Your task to perform on an android device: turn off notifications settings in the gmail app Image 0: 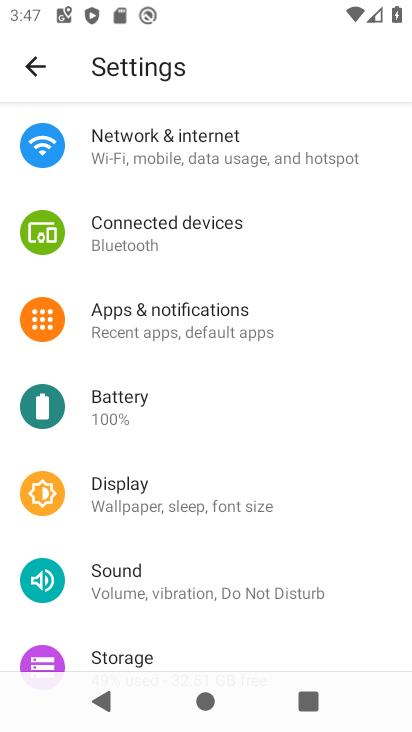
Step 0: press home button
Your task to perform on an android device: turn off notifications settings in the gmail app Image 1: 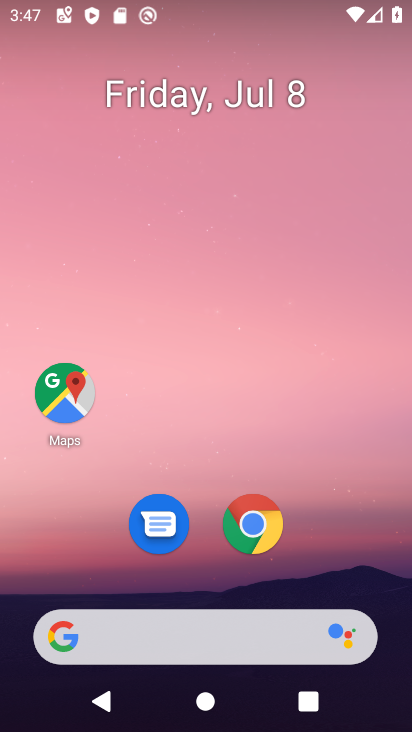
Step 1: drag from (318, 544) to (301, 17)
Your task to perform on an android device: turn off notifications settings in the gmail app Image 2: 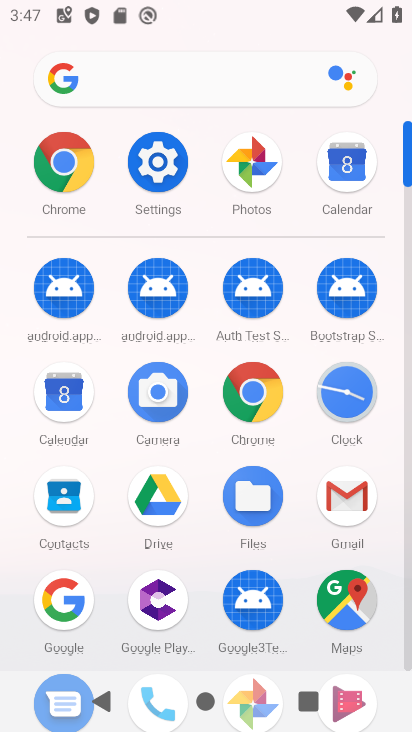
Step 2: click (340, 484)
Your task to perform on an android device: turn off notifications settings in the gmail app Image 3: 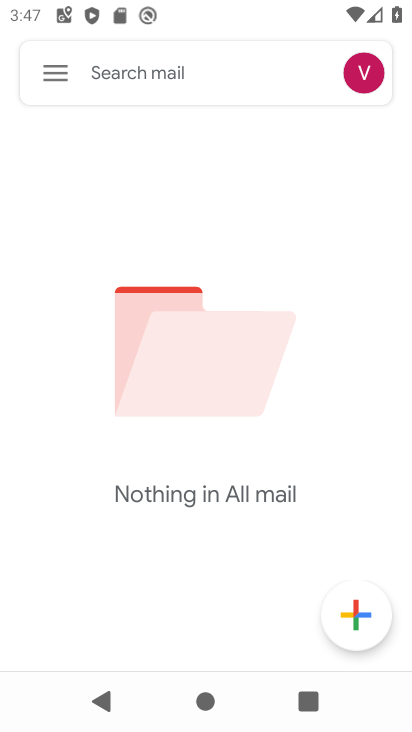
Step 3: click (62, 78)
Your task to perform on an android device: turn off notifications settings in the gmail app Image 4: 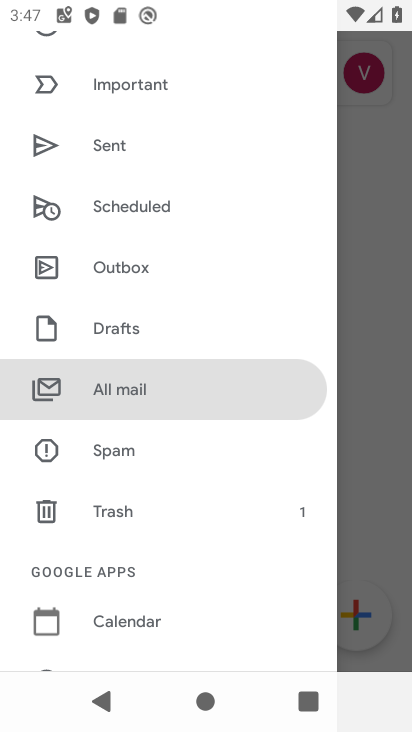
Step 4: drag from (222, 504) to (254, 194)
Your task to perform on an android device: turn off notifications settings in the gmail app Image 5: 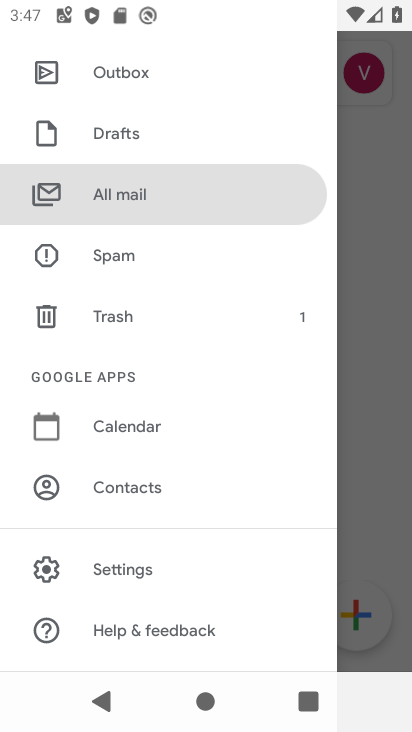
Step 5: click (128, 574)
Your task to perform on an android device: turn off notifications settings in the gmail app Image 6: 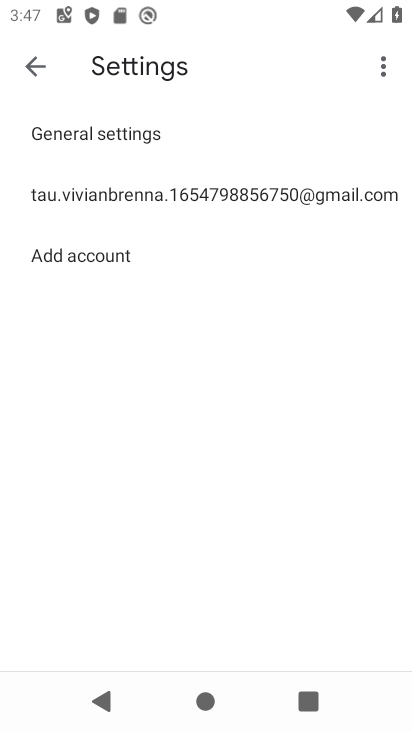
Step 6: click (236, 197)
Your task to perform on an android device: turn off notifications settings in the gmail app Image 7: 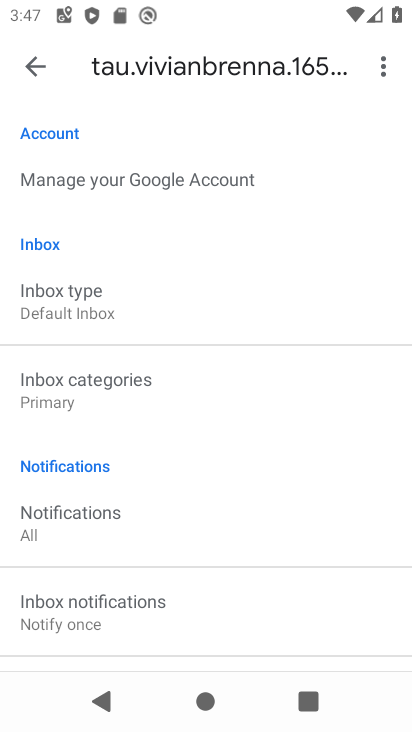
Step 7: drag from (209, 433) to (209, 187)
Your task to perform on an android device: turn off notifications settings in the gmail app Image 8: 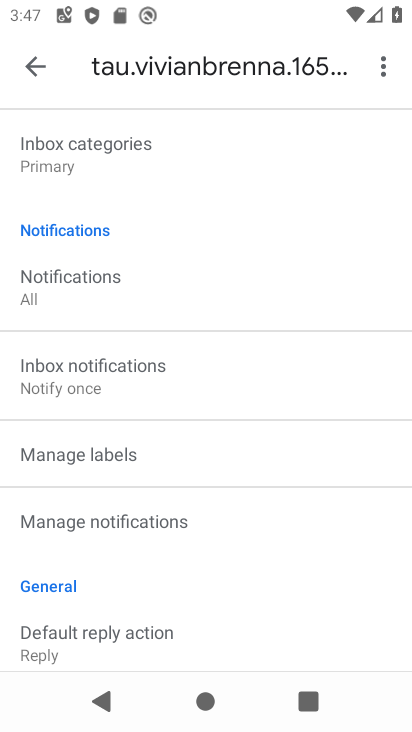
Step 8: click (164, 517)
Your task to perform on an android device: turn off notifications settings in the gmail app Image 9: 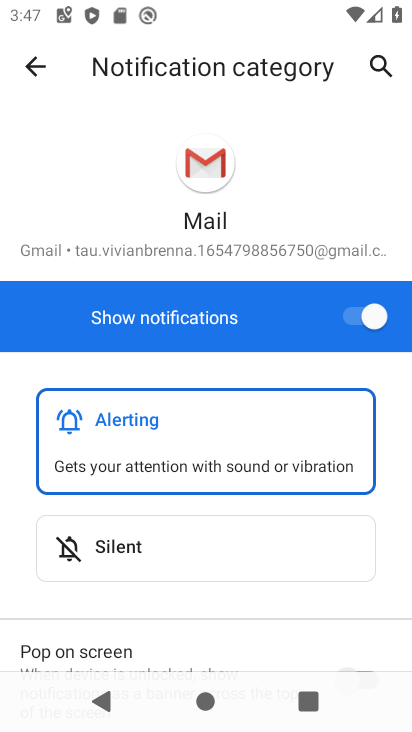
Step 9: click (363, 313)
Your task to perform on an android device: turn off notifications settings in the gmail app Image 10: 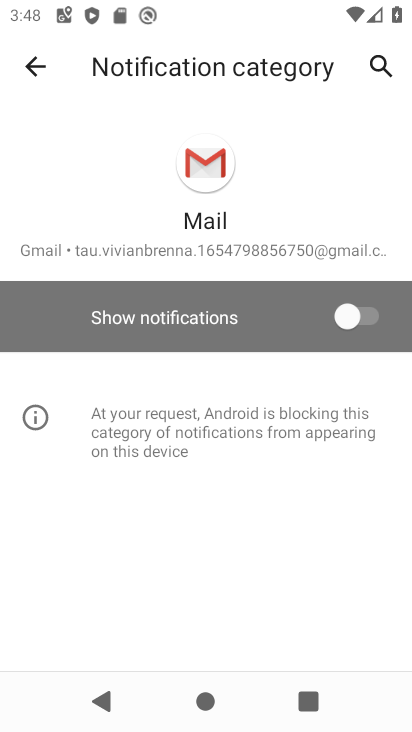
Step 10: task complete